Your task to perform on an android device: Is it going to rain today? Image 0: 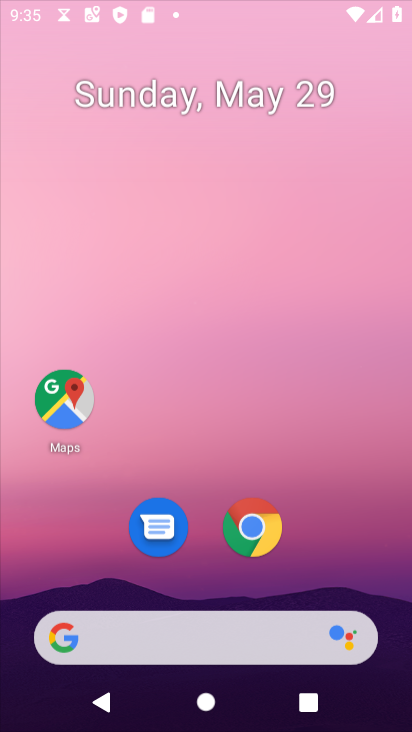
Step 0: press home button
Your task to perform on an android device: Is it going to rain today? Image 1: 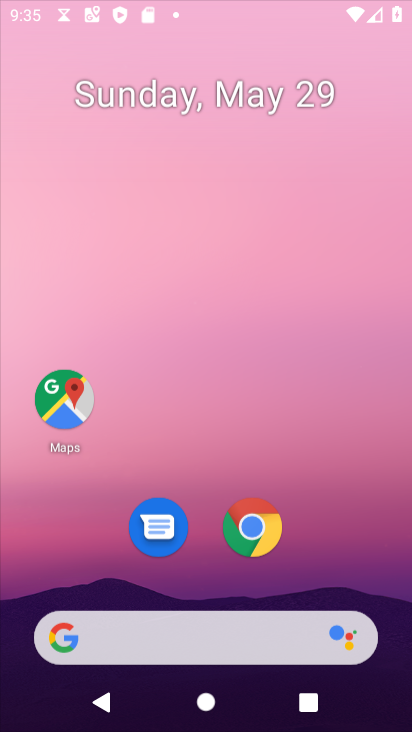
Step 1: click (406, 48)
Your task to perform on an android device: Is it going to rain today? Image 2: 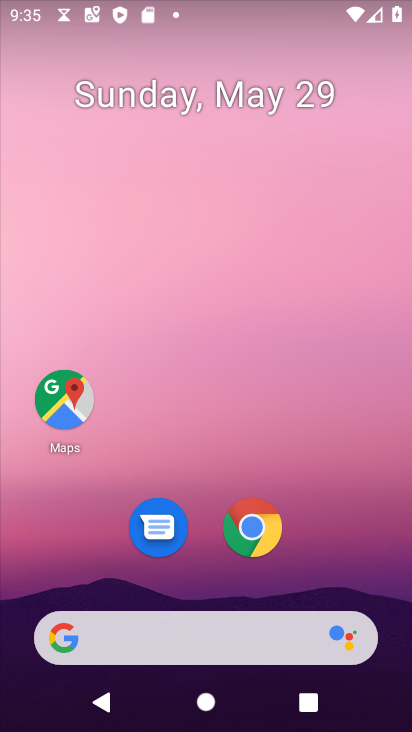
Step 2: click (70, 644)
Your task to perform on an android device: Is it going to rain today? Image 3: 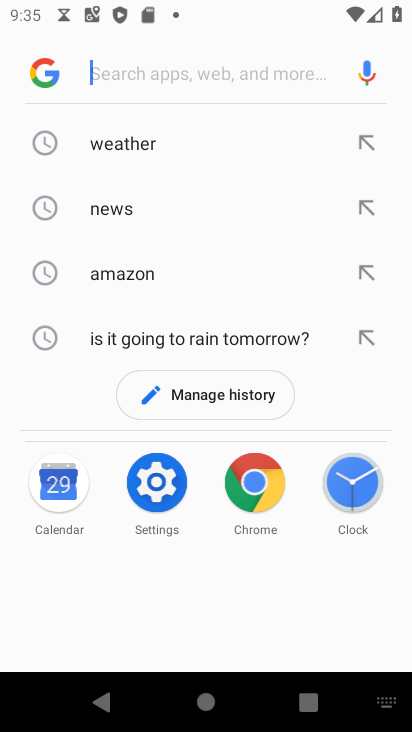
Step 3: click (131, 140)
Your task to perform on an android device: Is it going to rain today? Image 4: 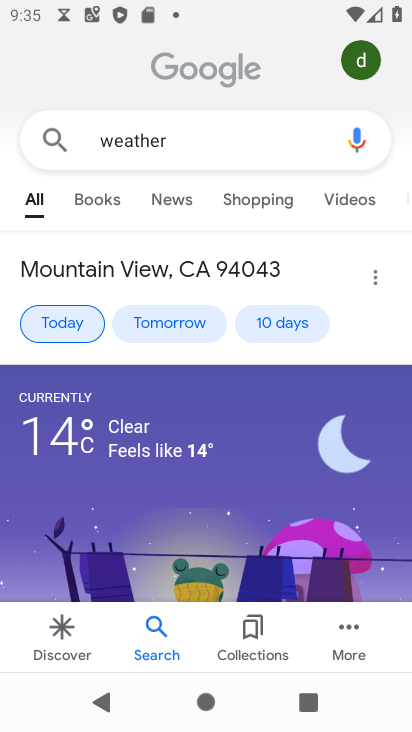
Step 4: task complete